Your task to perform on an android device: check data usage Image 0: 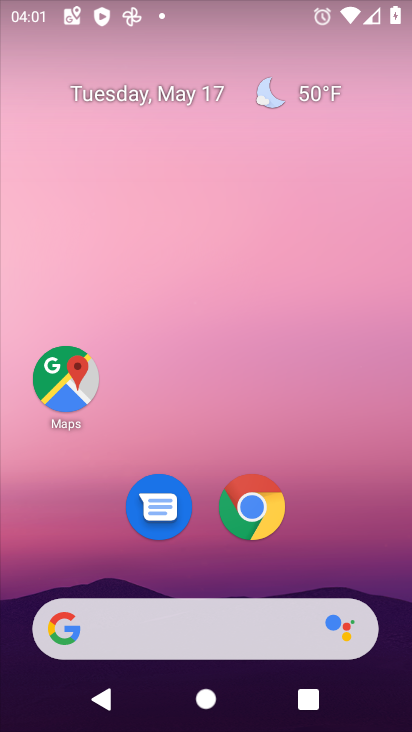
Step 0: drag from (312, 566) to (244, 104)
Your task to perform on an android device: check data usage Image 1: 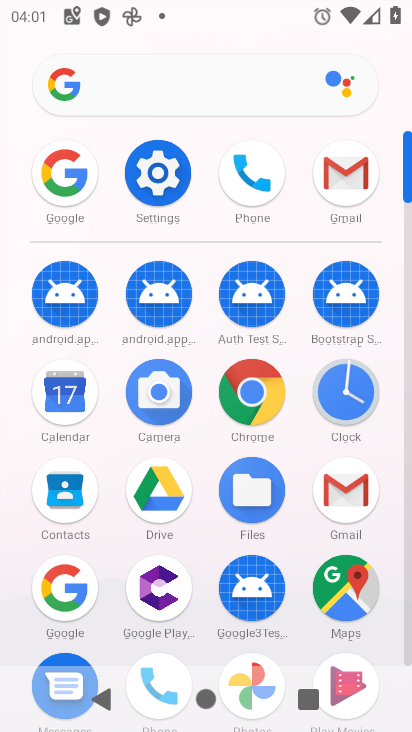
Step 1: click (151, 181)
Your task to perform on an android device: check data usage Image 2: 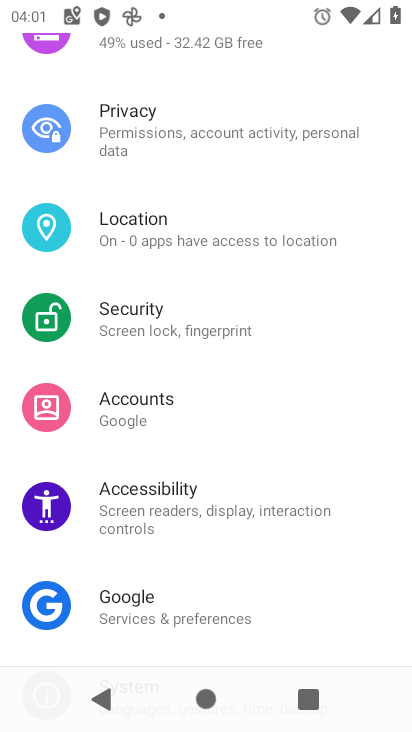
Step 2: drag from (272, 109) to (249, 628)
Your task to perform on an android device: check data usage Image 3: 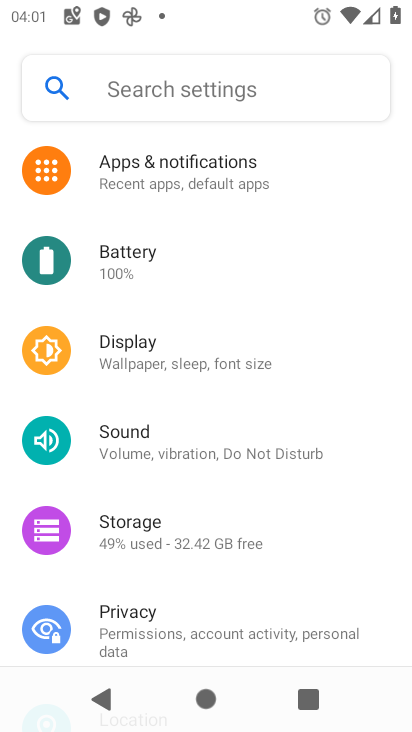
Step 3: drag from (220, 219) to (149, 666)
Your task to perform on an android device: check data usage Image 4: 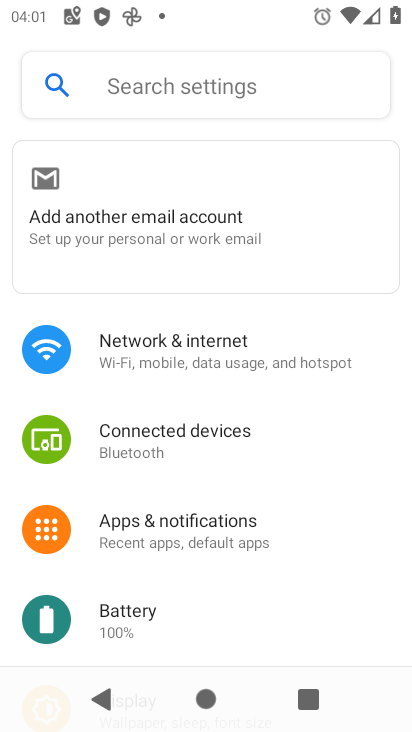
Step 4: click (165, 370)
Your task to perform on an android device: check data usage Image 5: 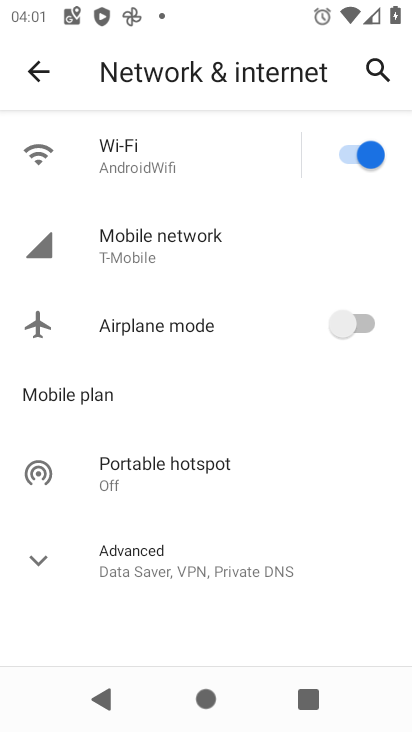
Step 5: click (184, 235)
Your task to perform on an android device: check data usage Image 6: 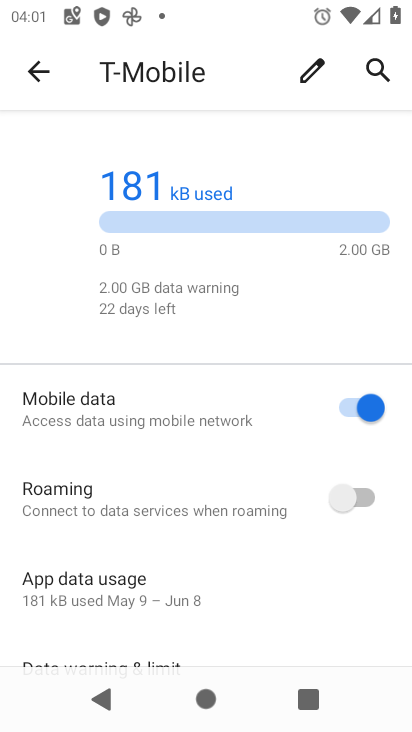
Step 6: task complete